Your task to perform on an android device: Open Reddit.com Image 0: 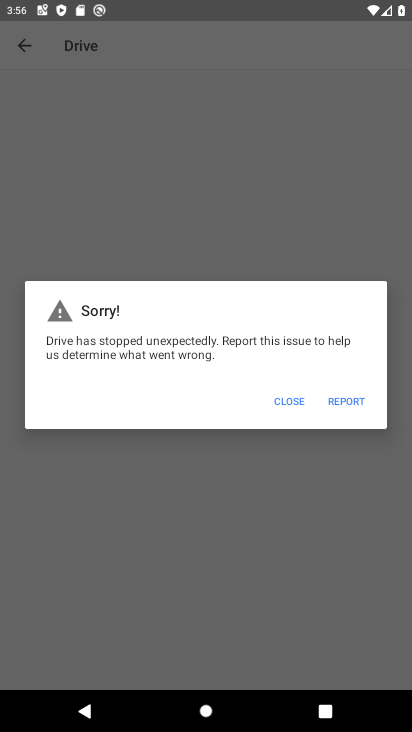
Step 0: press home button
Your task to perform on an android device: Open Reddit.com Image 1: 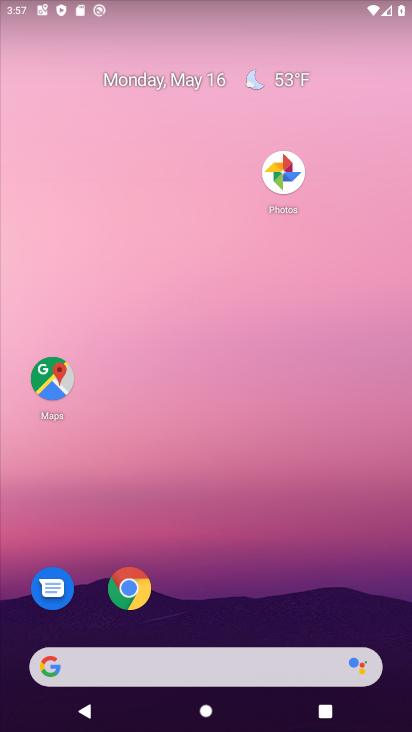
Step 1: click (157, 654)
Your task to perform on an android device: Open Reddit.com Image 2: 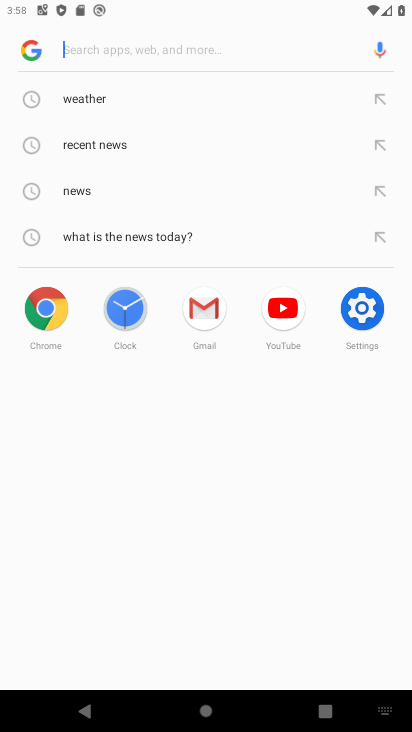
Step 2: type "reddit.com"
Your task to perform on an android device: Open Reddit.com Image 3: 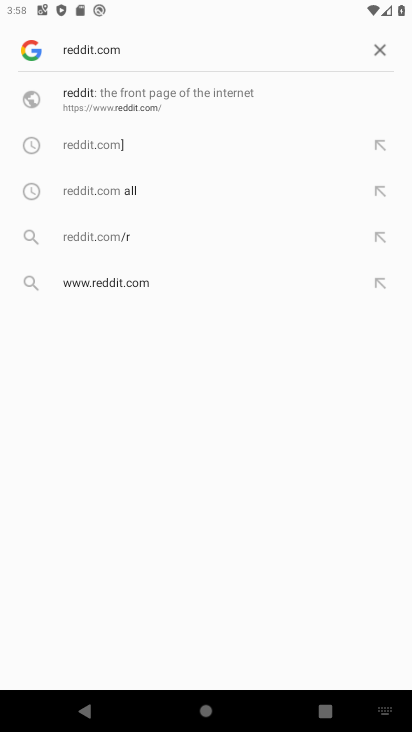
Step 3: click (162, 103)
Your task to perform on an android device: Open Reddit.com Image 4: 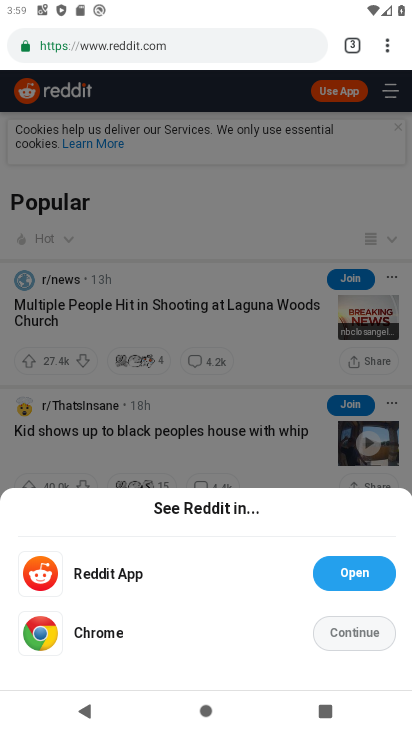
Step 4: task complete